Your task to perform on an android device: What is the news today? Image 0: 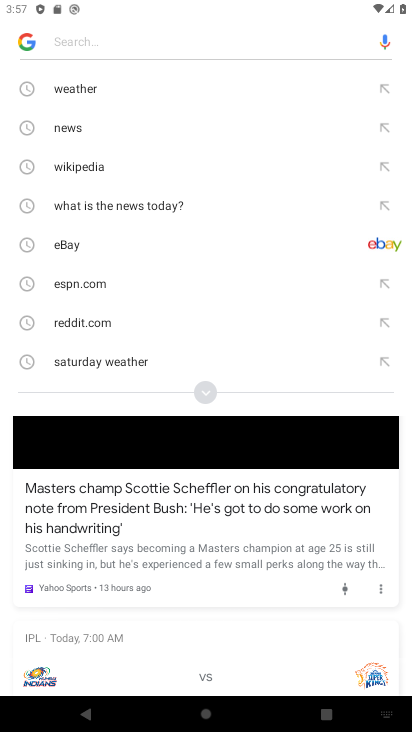
Step 0: click (178, 36)
Your task to perform on an android device: What is the news today? Image 1: 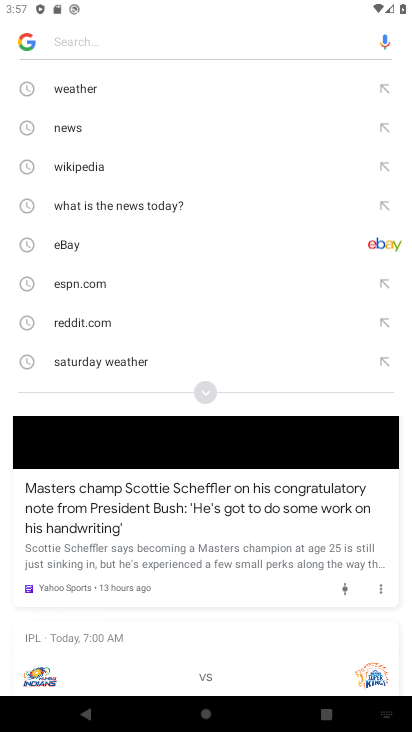
Step 1: click (93, 211)
Your task to perform on an android device: What is the news today? Image 2: 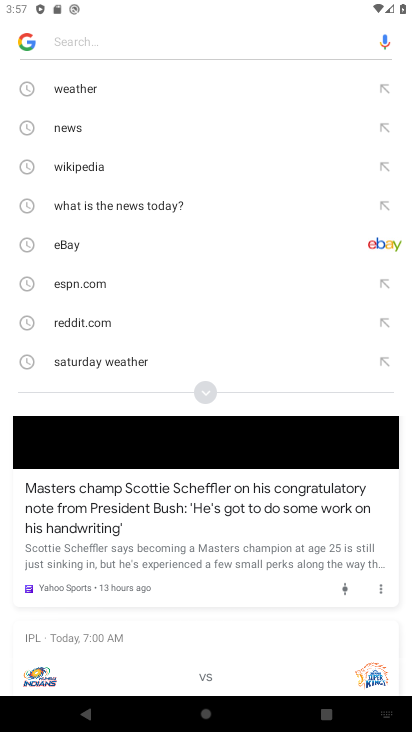
Step 2: click (104, 131)
Your task to perform on an android device: What is the news today? Image 3: 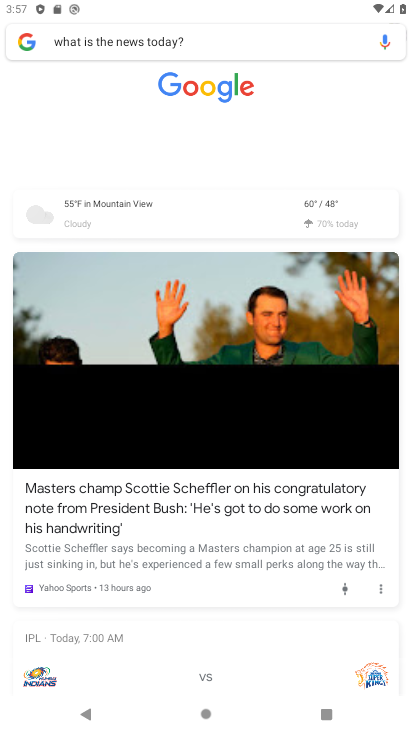
Step 3: click (92, 208)
Your task to perform on an android device: What is the news today? Image 4: 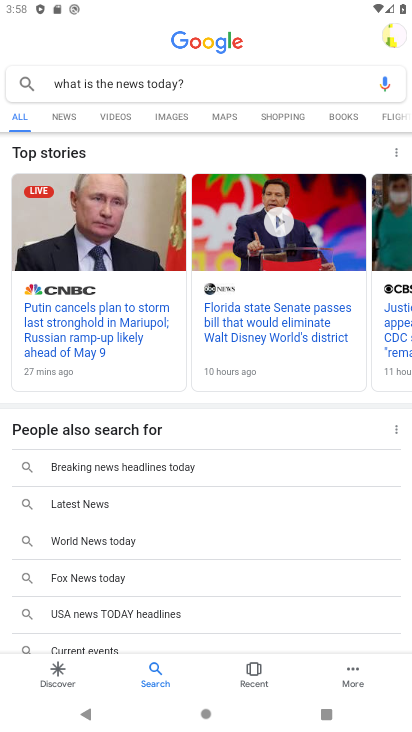
Step 4: task complete